Your task to perform on an android device: change notification settings in the gmail app Image 0: 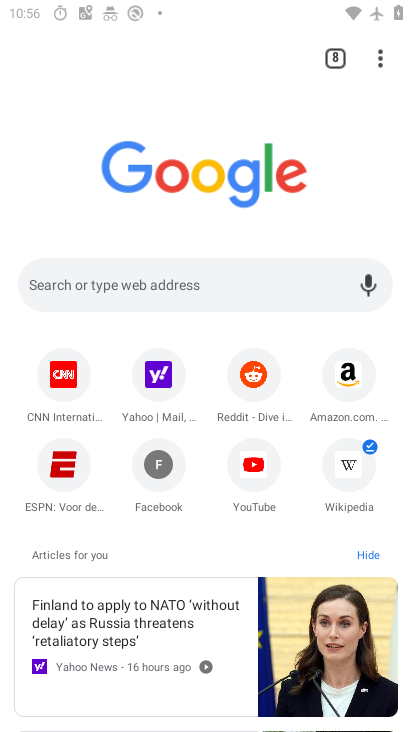
Step 0: drag from (385, 652) to (123, 13)
Your task to perform on an android device: change notification settings in the gmail app Image 1: 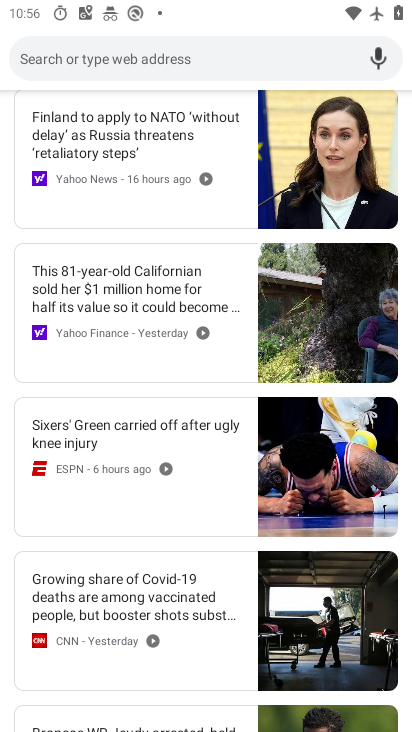
Step 1: drag from (209, 249) to (270, 548)
Your task to perform on an android device: change notification settings in the gmail app Image 2: 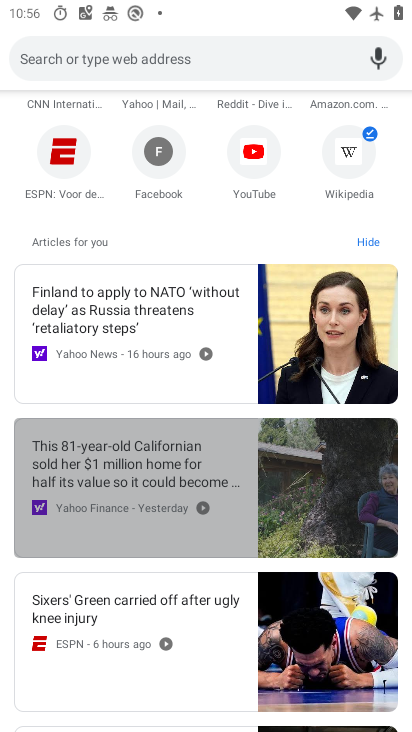
Step 2: drag from (222, 298) to (270, 591)
Your task to perform on an android device: change notification settings in the gmail app Image 3: 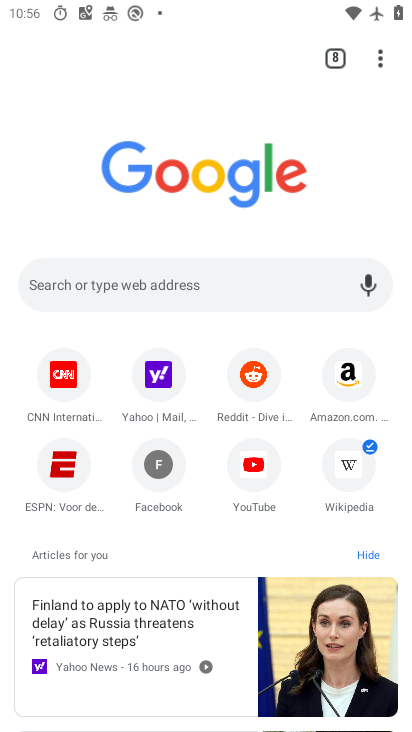
Step 3: press home button
Your task to perform on an android device: change notification settings in the gmail app Image 4: 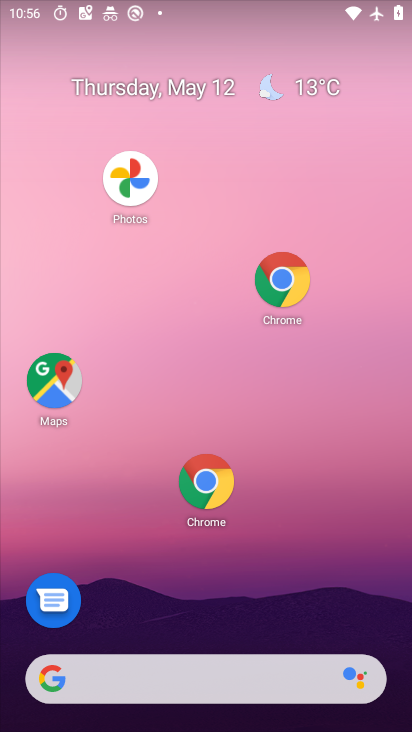
Step 4: drag from (289, 609) to (69, 66)
Your task to perform on an android device: change notification settings in the gmail app Image 5: 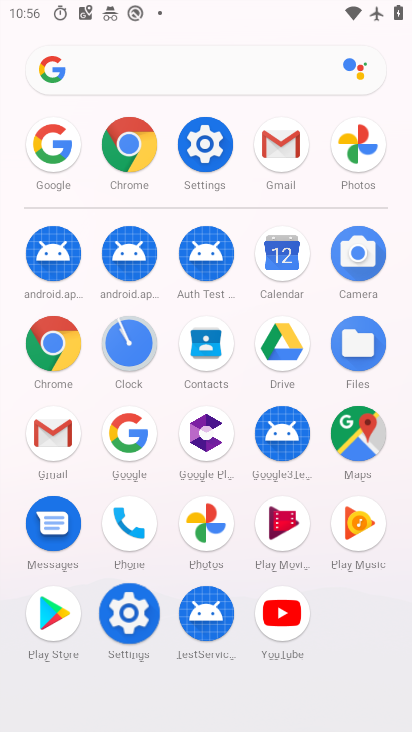
Step 5: click (55, 431)
Your task to perform on an android device: change notification settings in the gmail app Image 6: 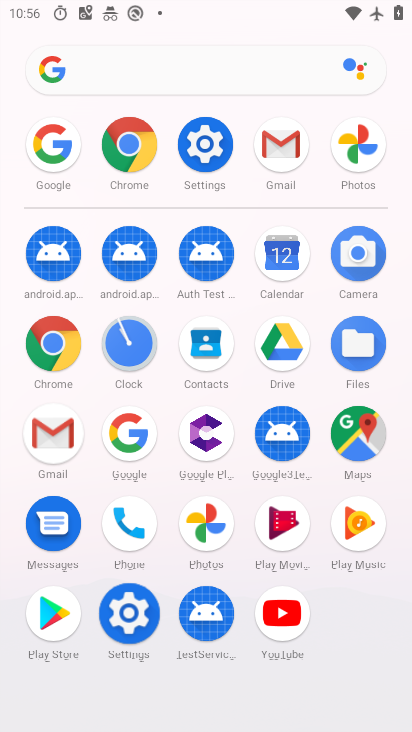
Step 6: click (55, 431)
Your task to perform on an android device: change notification settings in the gmail app Image 7: 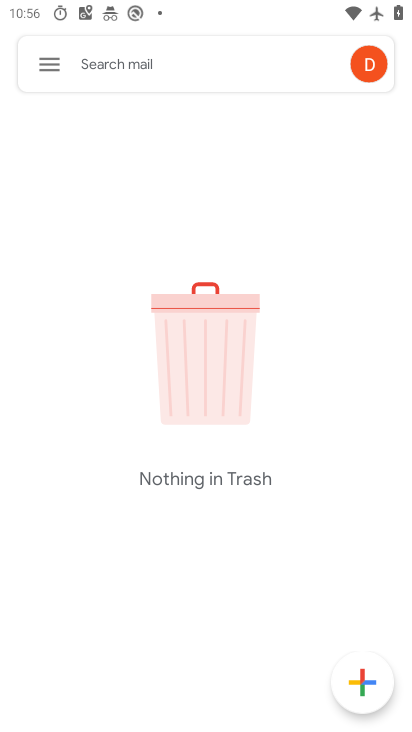
Step 7: click (37, 64)
Your task to perform on an android device: change notification settings in the gmail app Image 8: 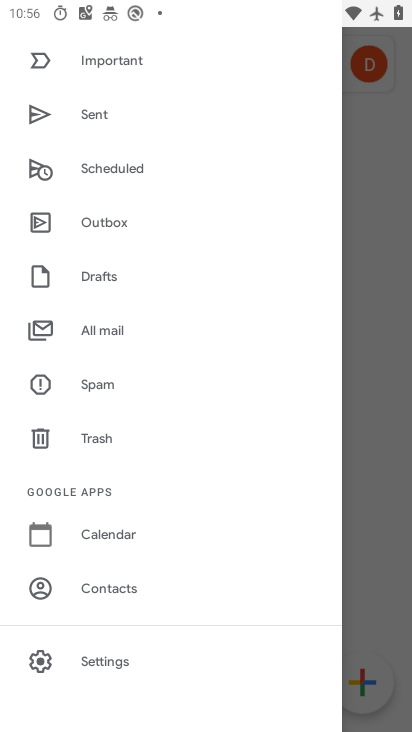
Step 8: click (116, 651)
Your task to perform on an android device: change notification settings in the gmail app Image 9: 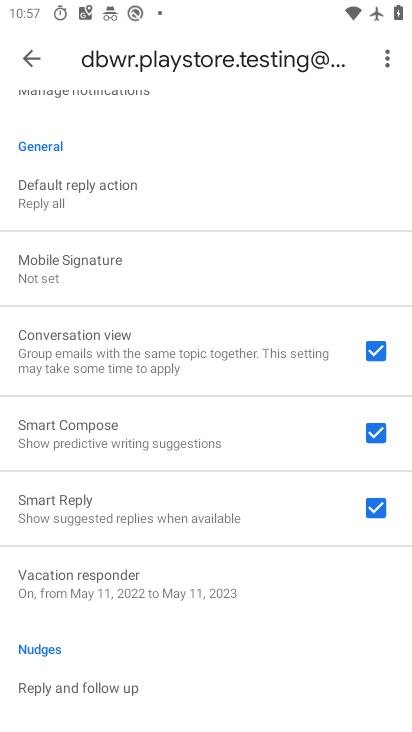
Step 9: drag from (61, 198) to (146, 667)
Your task to perform on an android device: change notification settings in the gmail app Image 10: 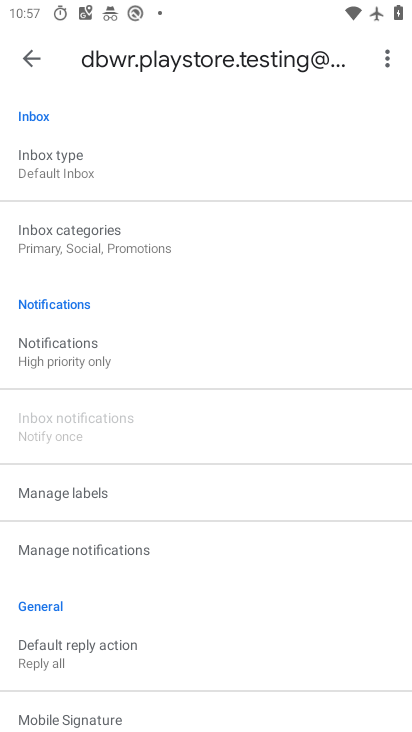
Step 10: click (66, 347)
Your task to perform on an android device: change notification settings in the gmail app Image 11: 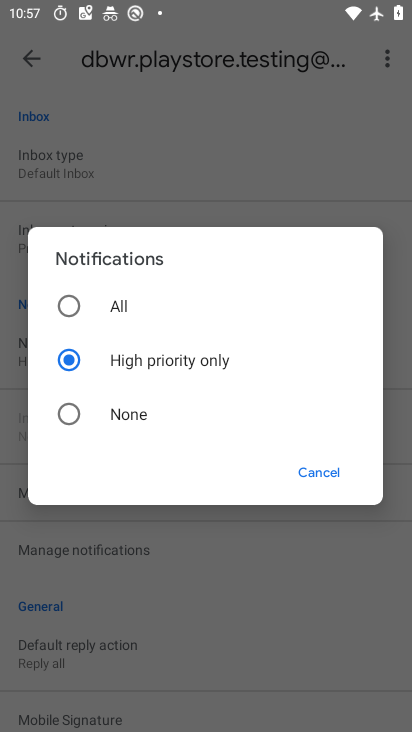
Step 11: click (68, 308)
Your task to perform on an android device: change notification settings in the gmail app Image 12: 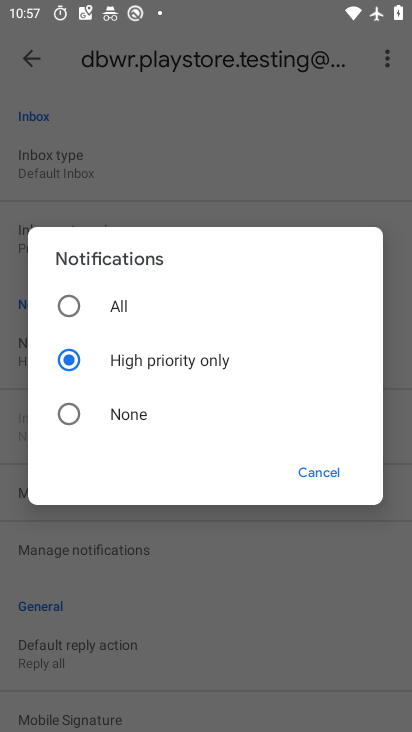
Step 12: click (78, 305)
Your task to perform on an android device: change notification settings in the gmail app Image 13: 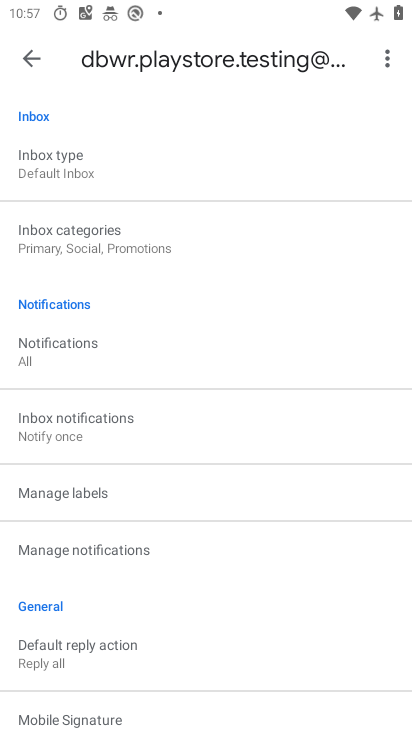
Step 13: task complete